Your task to perform on an android device: open wifi settings Image 0: 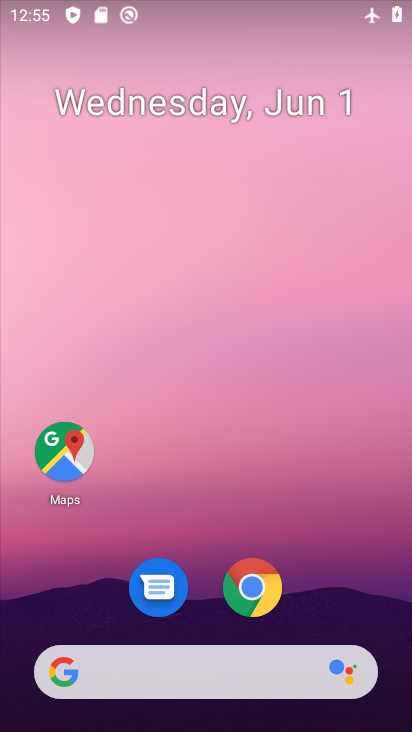
Step 0: drag from (224, 505) to (185, 108)
Your task to perform on an android device: open wifi settings Image 1: 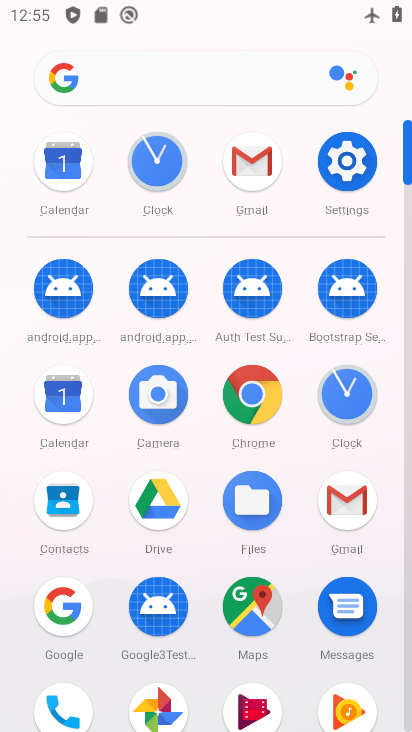
Step 1: click (341, 168)
Your task to perform on an android device: open wifi settings Image 2: 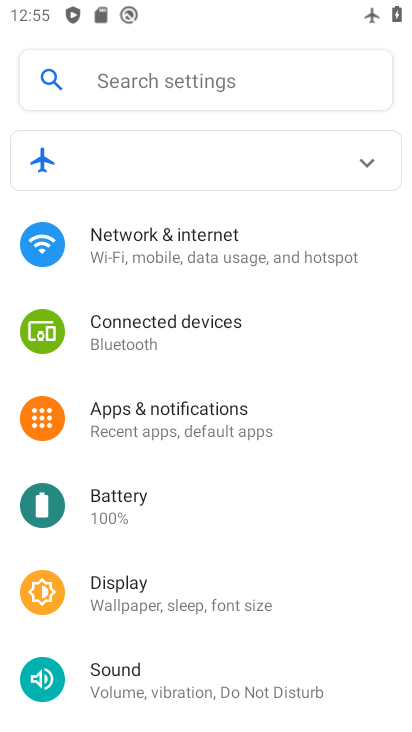
Step 2: click (164, 239)
Your task to perform on an android device: open wifi settings Image 3: 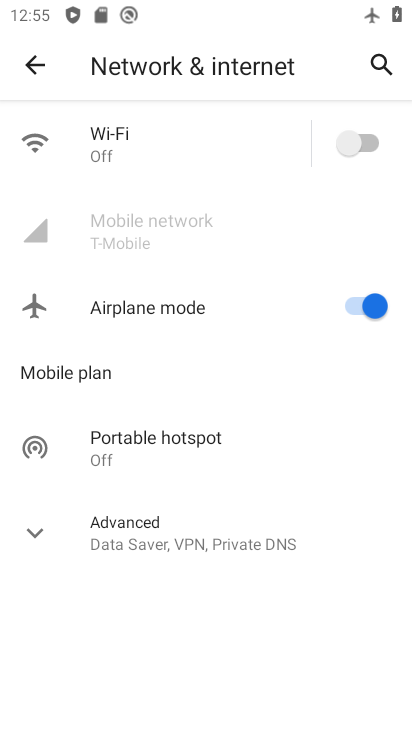
Step 3: click (114, 126)
Your task to perform on an android device: open wifi settings Image 4: 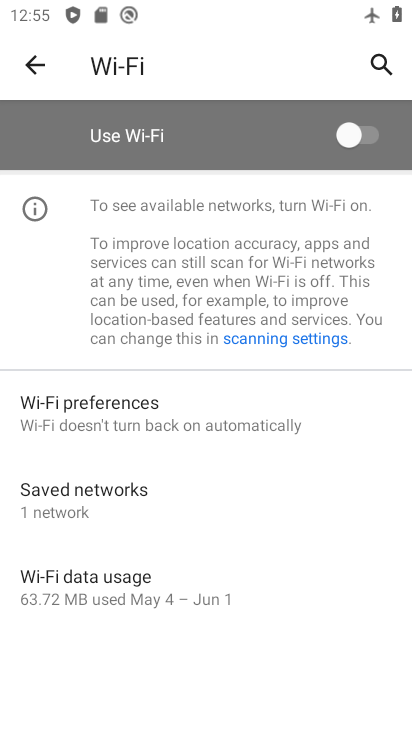
Step 4: task complete